Your task to perform on an android device: Search for usb-a to usb-b on newegg.com, select the first entry, and add it to the cart. Image 0: 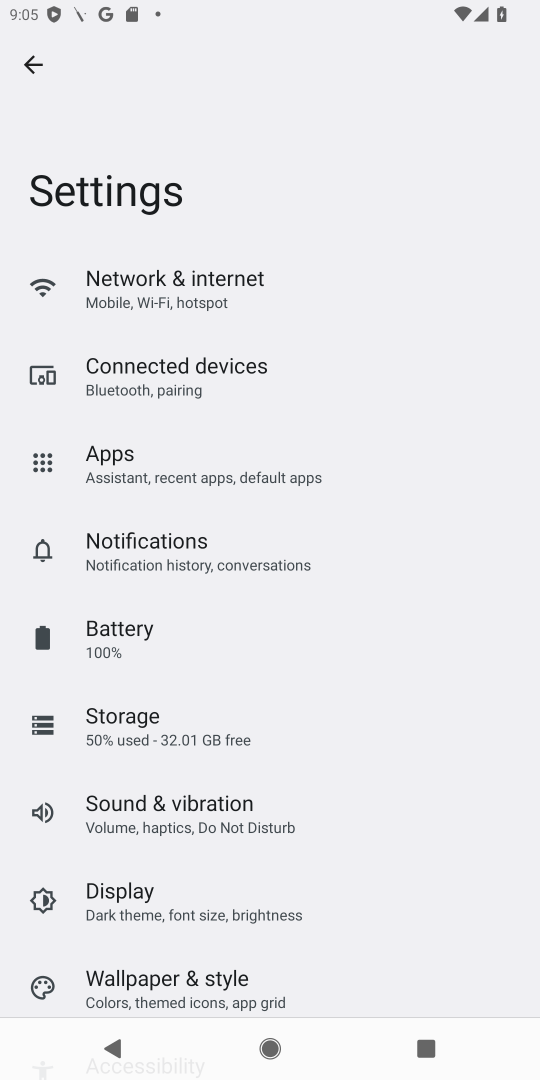
Step 0: press home button
Your task to perform on an android device: Search for usb-a to usb-b on newegg.com, select the first entry, and add it to the cart. Image 1: 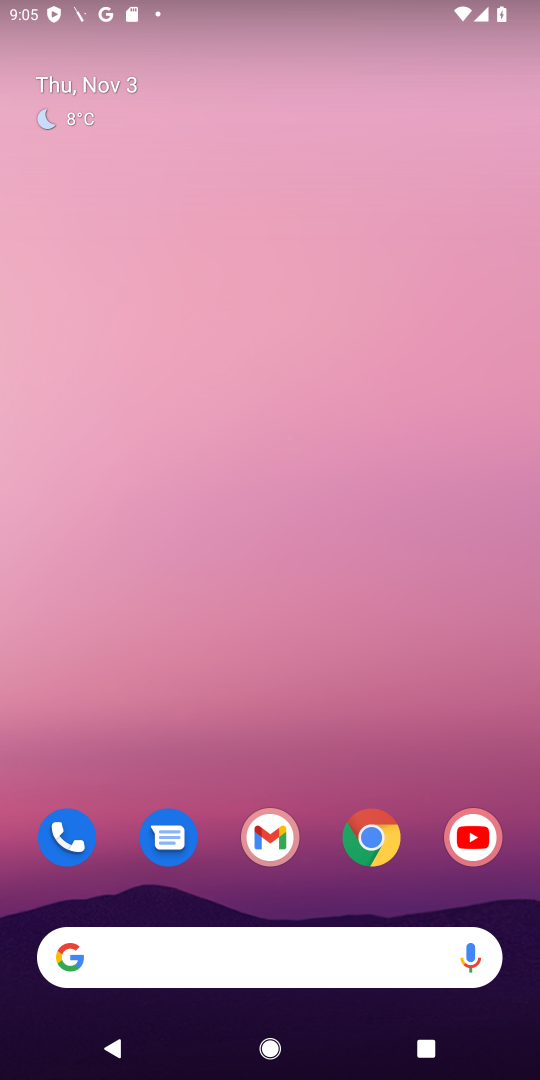
Step 1: click (376, 838)
Your task to perform on an android device: Search for usb-a to usb-b on newegg.com, select the first entry, and add it to the cart. Image 2: 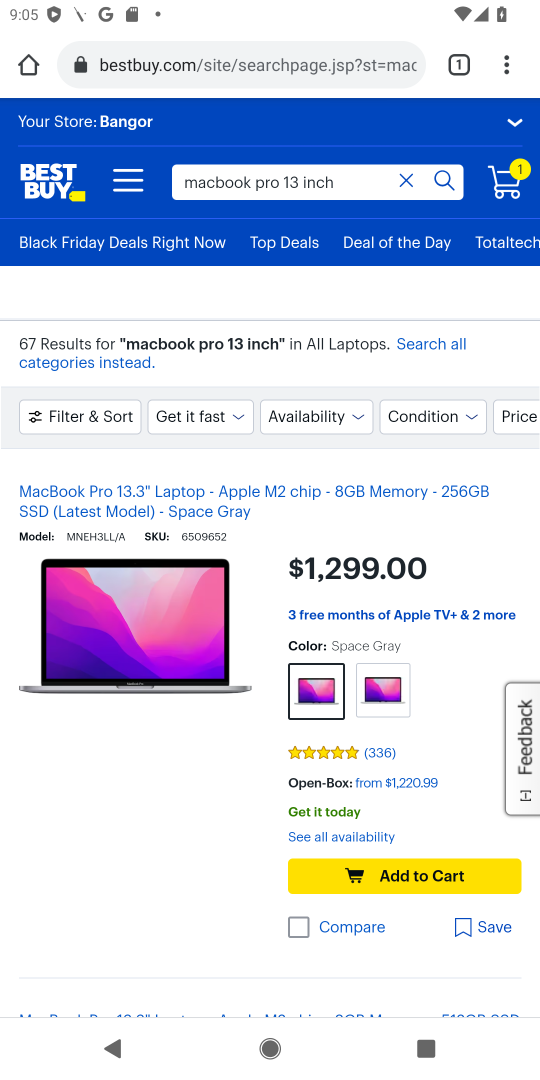
Step 2: click (250, 60)
Your task to perform on an android device: Search for usb-a to usb-b on newegg.com, select the first entry, and add it to the cart. Image 3: 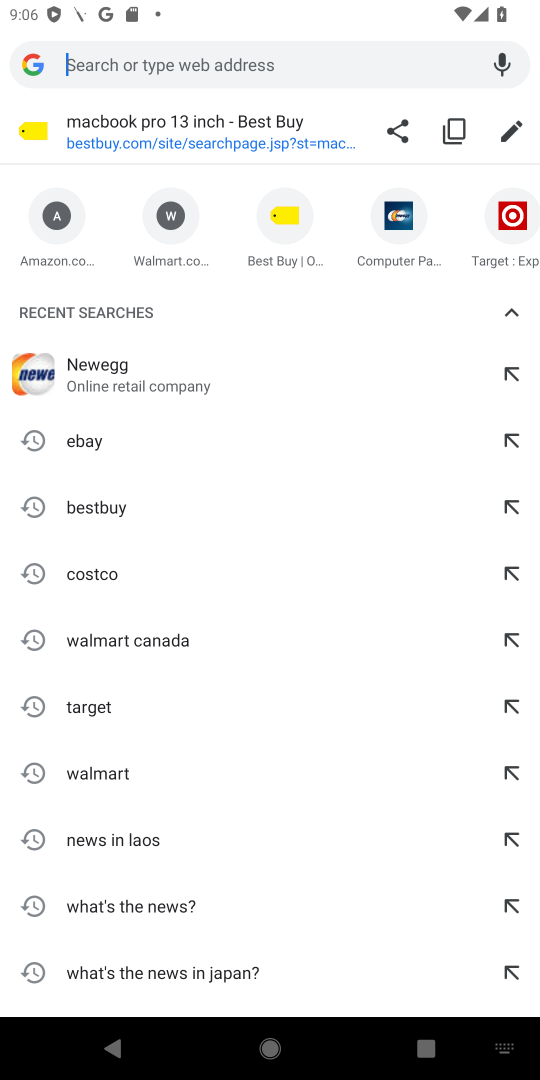
Step 3: click (86, 359)
Your task to perform on an android device: Search for usb-a to usb-b on newegg.com, select the first entry, and add it to the cart. Image 4: 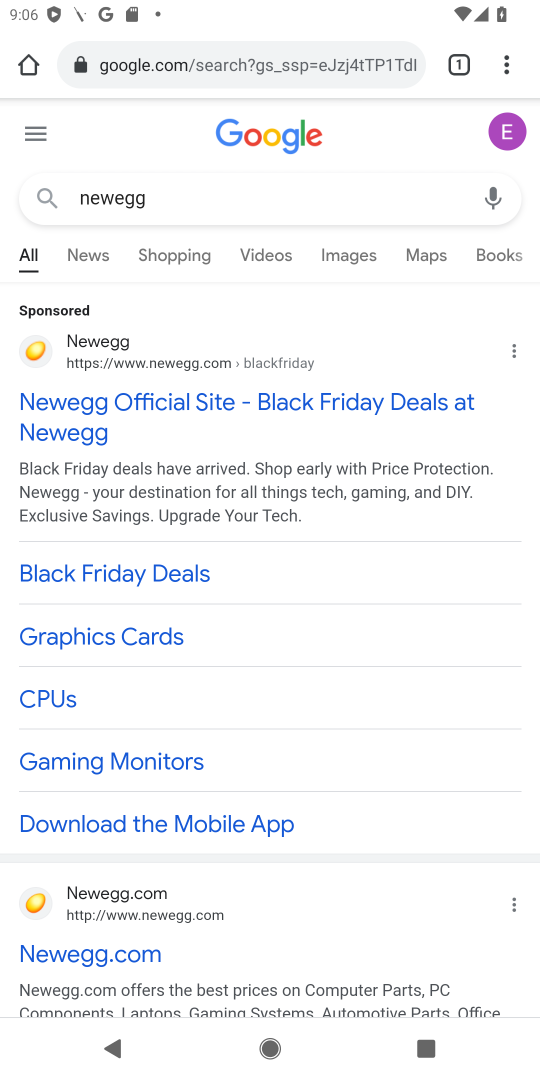
Step 4: click (140, 410)
Your task to perform on an android device: Search for usb-a to usb-b on newegg.com, select the first entry, and add it to the cart. Image 5: 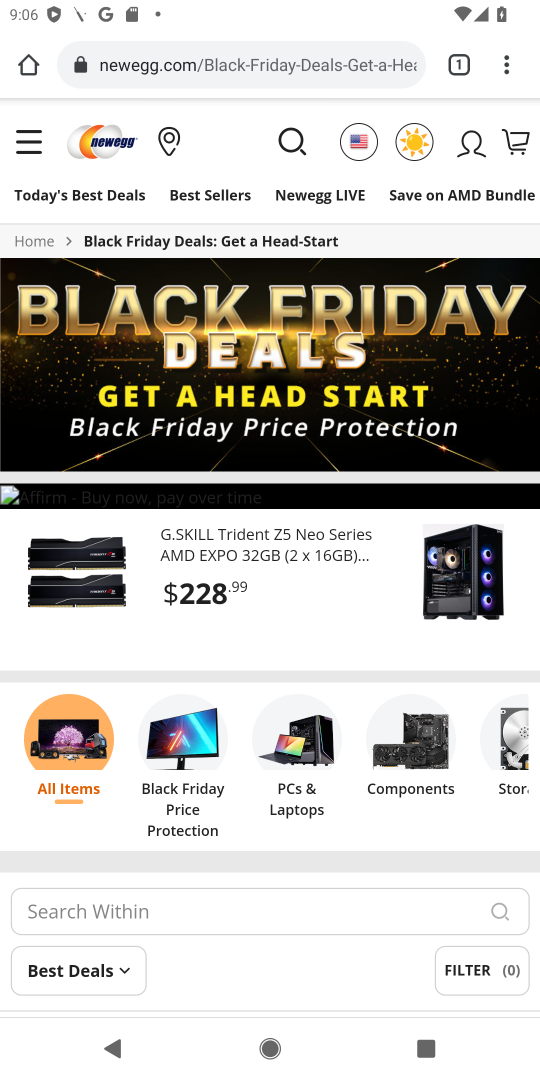
Step 5: click (288, 140)
Your task to perform on an android device: Search for usb-a to usb-b on newegg.com, select the first entry, and add it to the cart. Image 6: 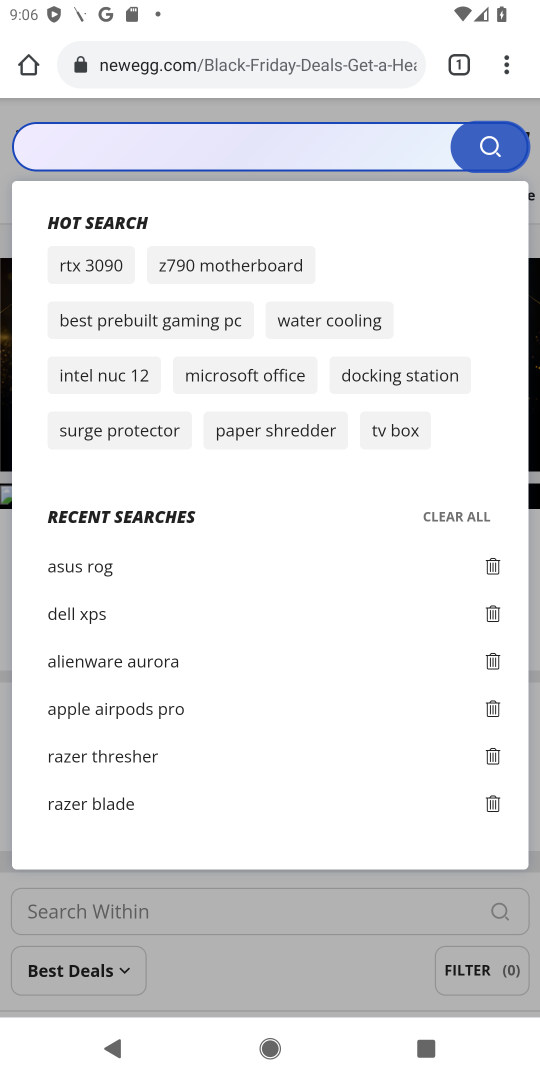
Step 6: click (119, 143)
Your task to perform on an android device: Search for usb-a to usb-b on newegg.com, select the first entry, and add it to the cart. Image 7: 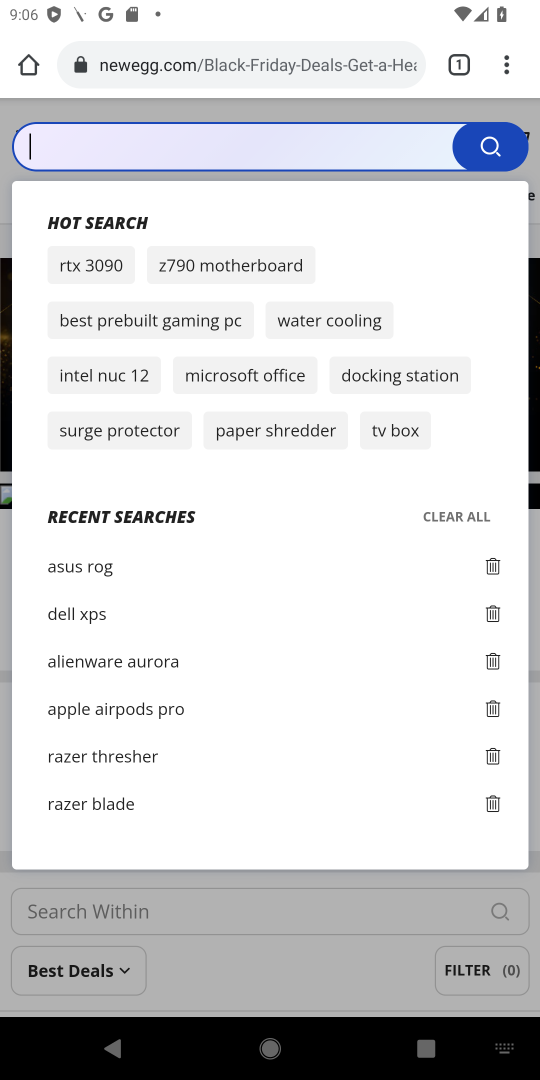
Step 7: type "usb-a to usb-b"
Your task to perform on an android device: Search for usb-a to usb-b on newegg.com, select the first entry, and add it to the cart. Image 8: 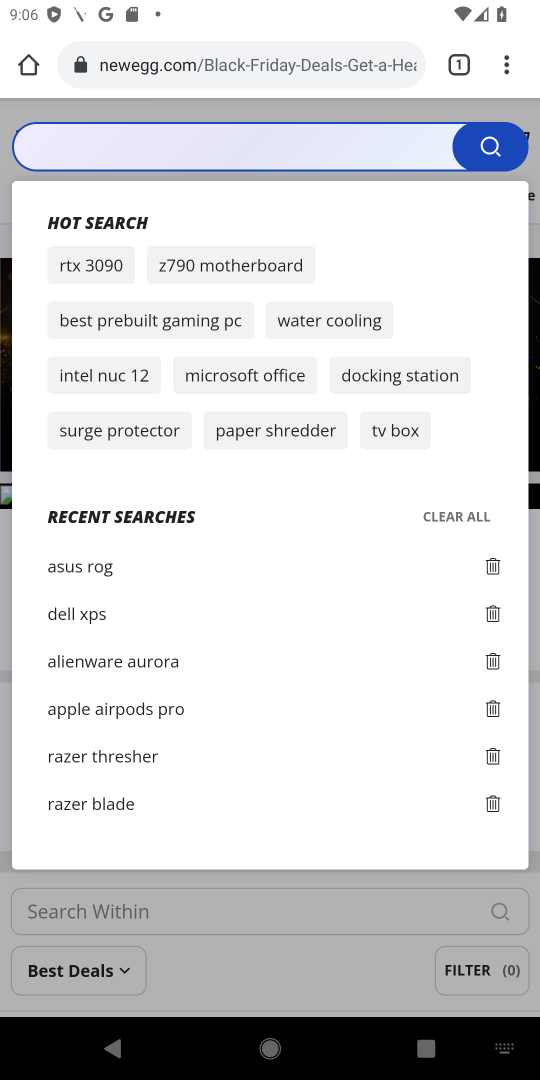
Step 8: press enter
Your task to perform on an android device: Search for usb-a to usb-b on newegg.com, select the first entry, and add it to the cart. Image 9: 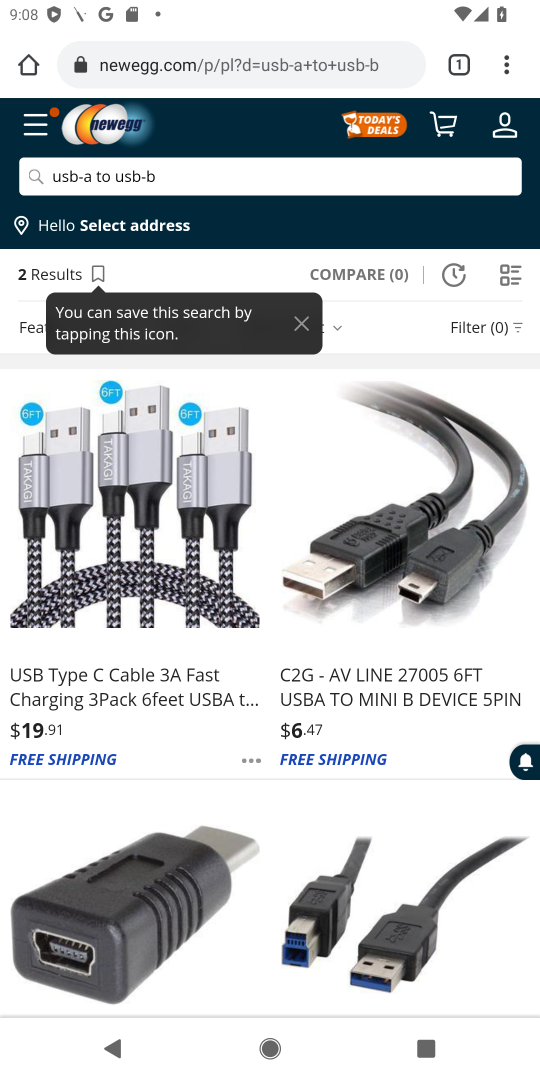
Step 9: task complete